Your task to perform on an android device: Open calendar and show me the third week of next month Image 0: 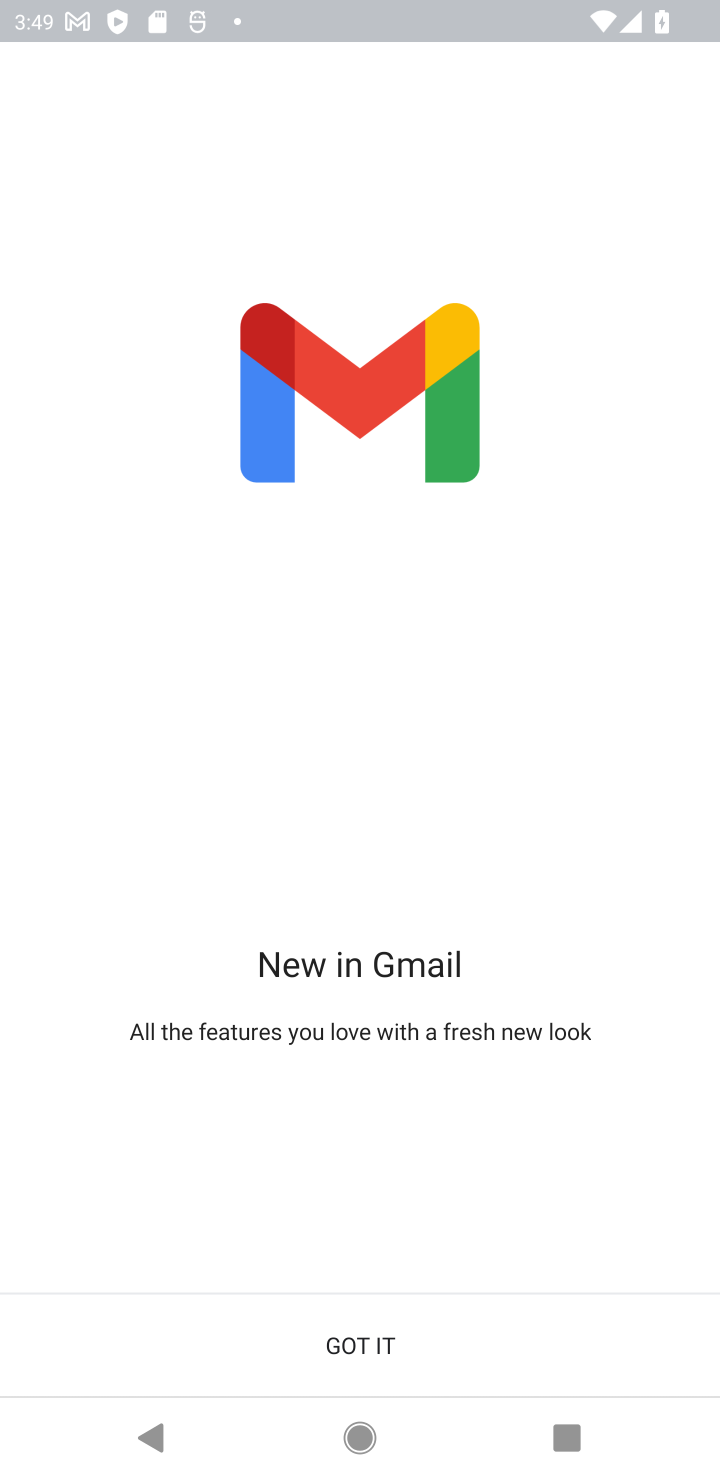
Step 0: click (424, 1312)
Your task to perform on an android device: Open calendar and show me the third week of next month Image 1: 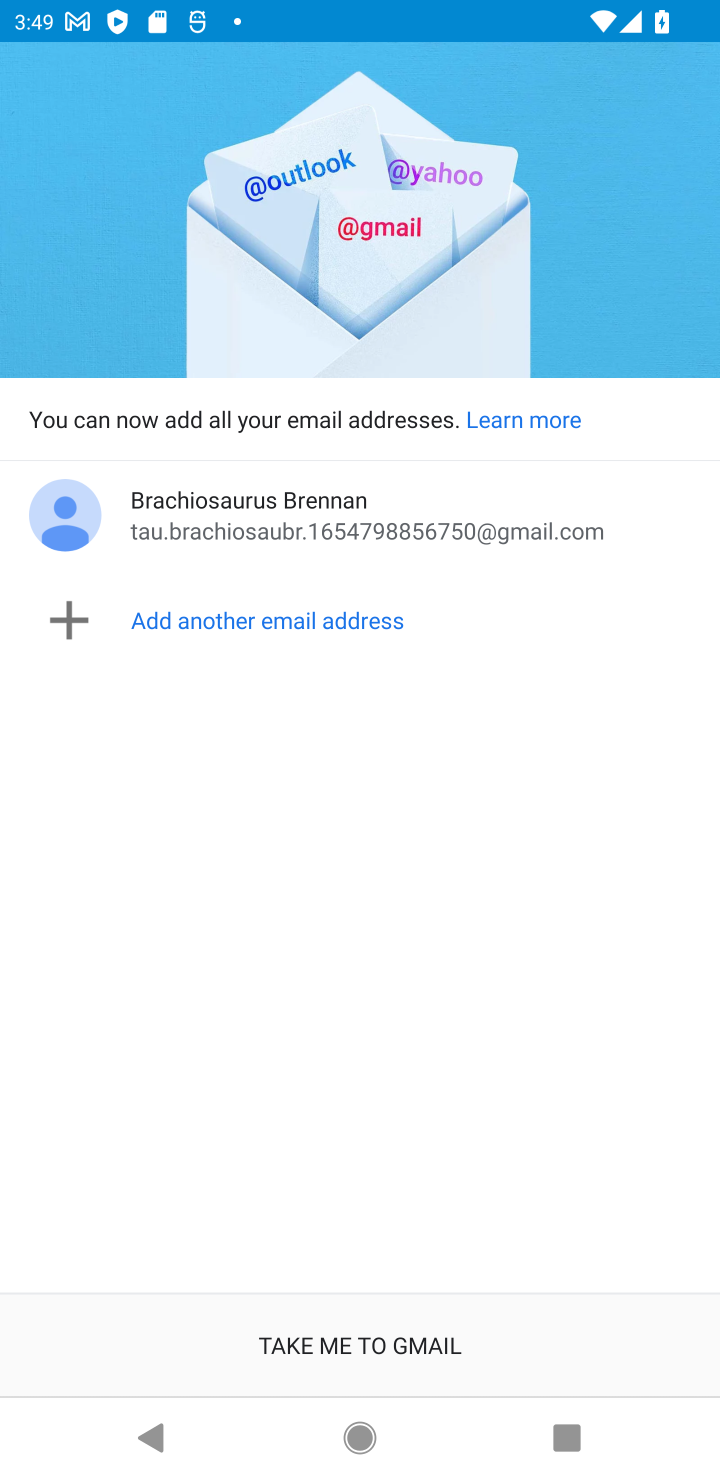
Step 1: press home button
Your task to perform on an android device: Open calendar and show me the third week of next month Image 2: 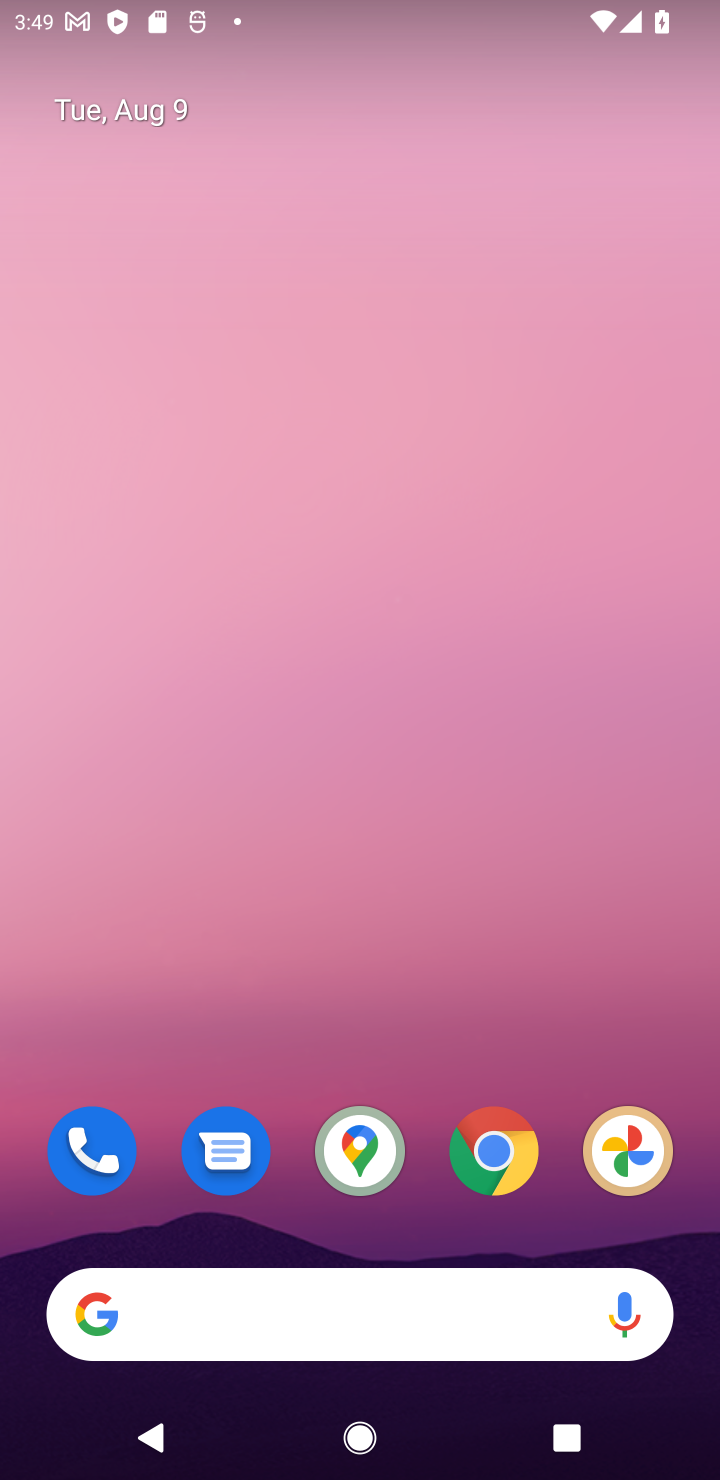
Step 2: drag from (186, 1404) to (416, 217)
Your task to perform on an android device: Open calendar and show me the third week of next month Image 3: 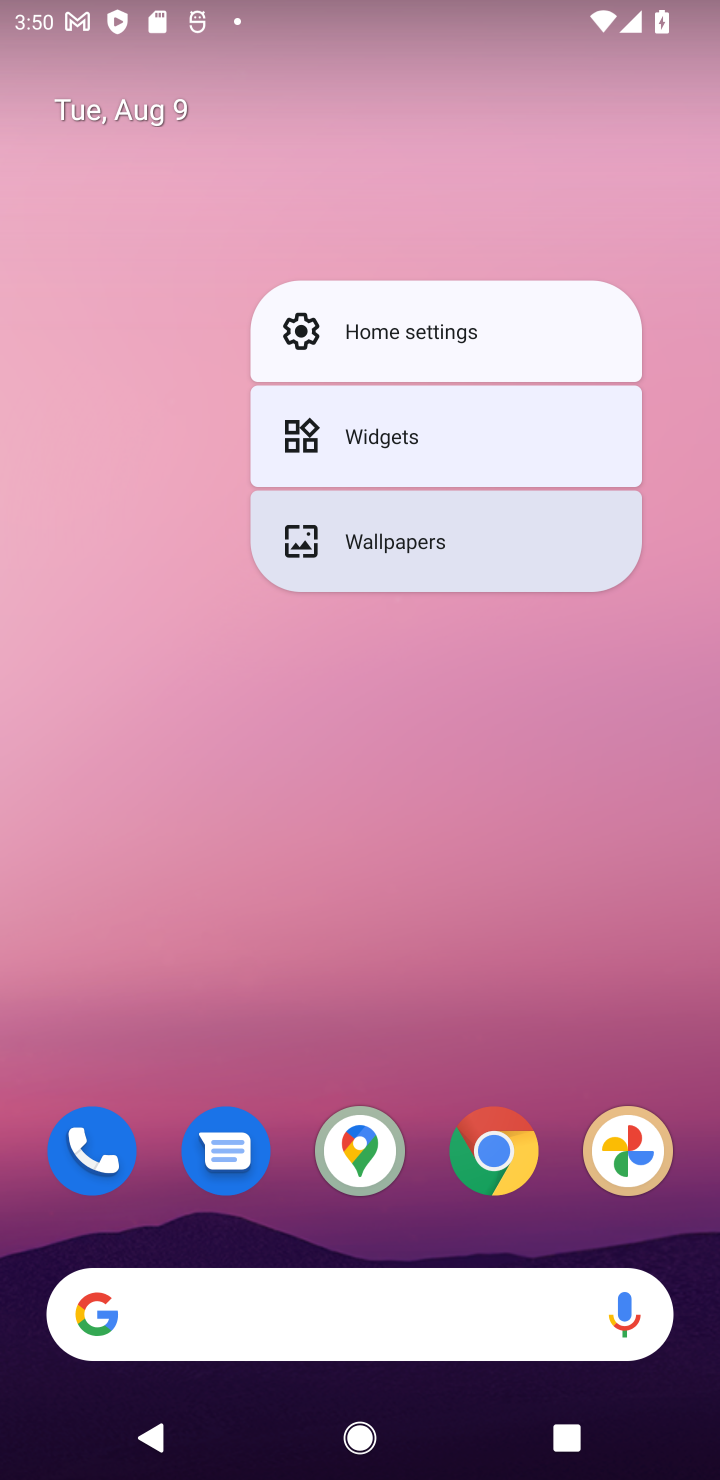
Step 3: drag from (301, 1422) to (183, 132)
Your task to perform on an android device: Open calendar and show me the third week of next month Image 4: 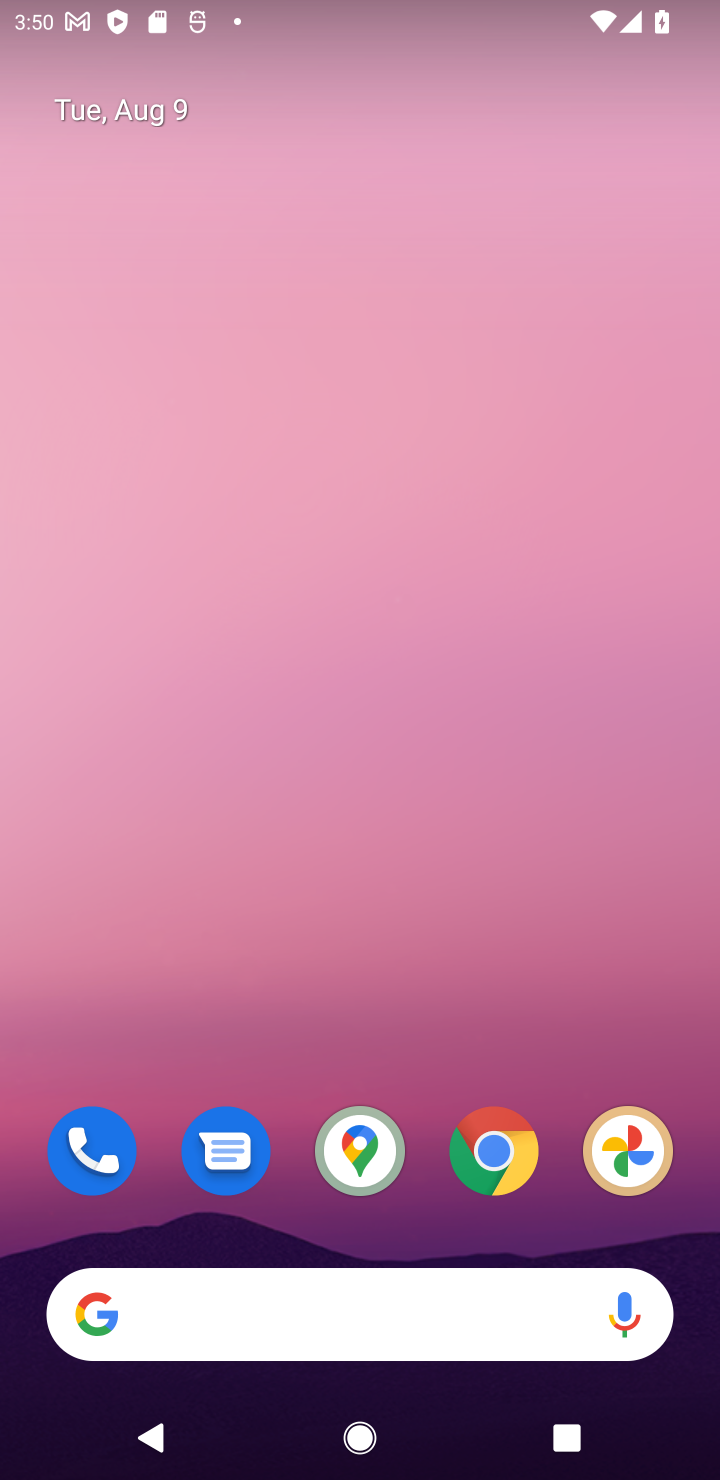
Step 4: drag from (86, 1386) to (93, 583)
Your task to perform on an android device: Open calendar and show me the third week of next month Image 5: 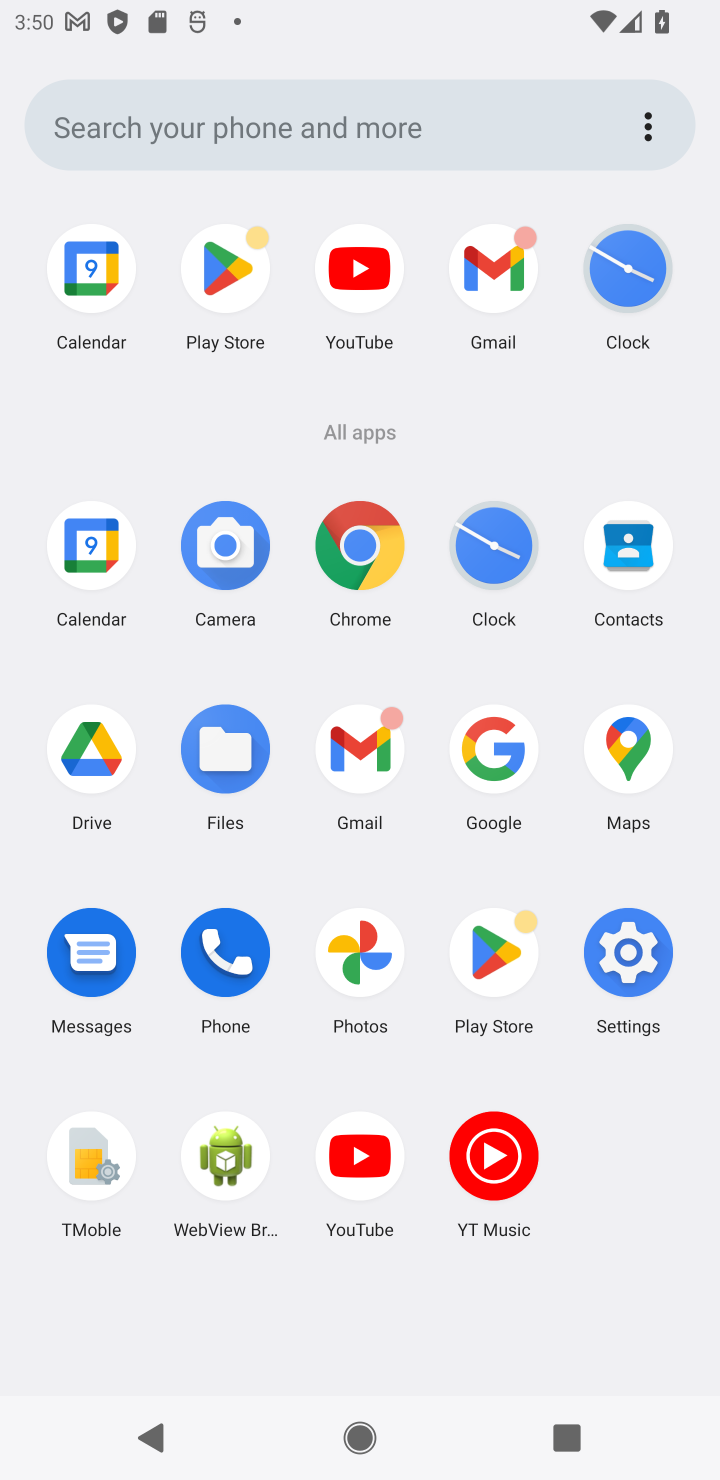
Step 5: click (105, 250)
Your task to perform on an android device: Open calendar and show me the third week of next month Image 6: 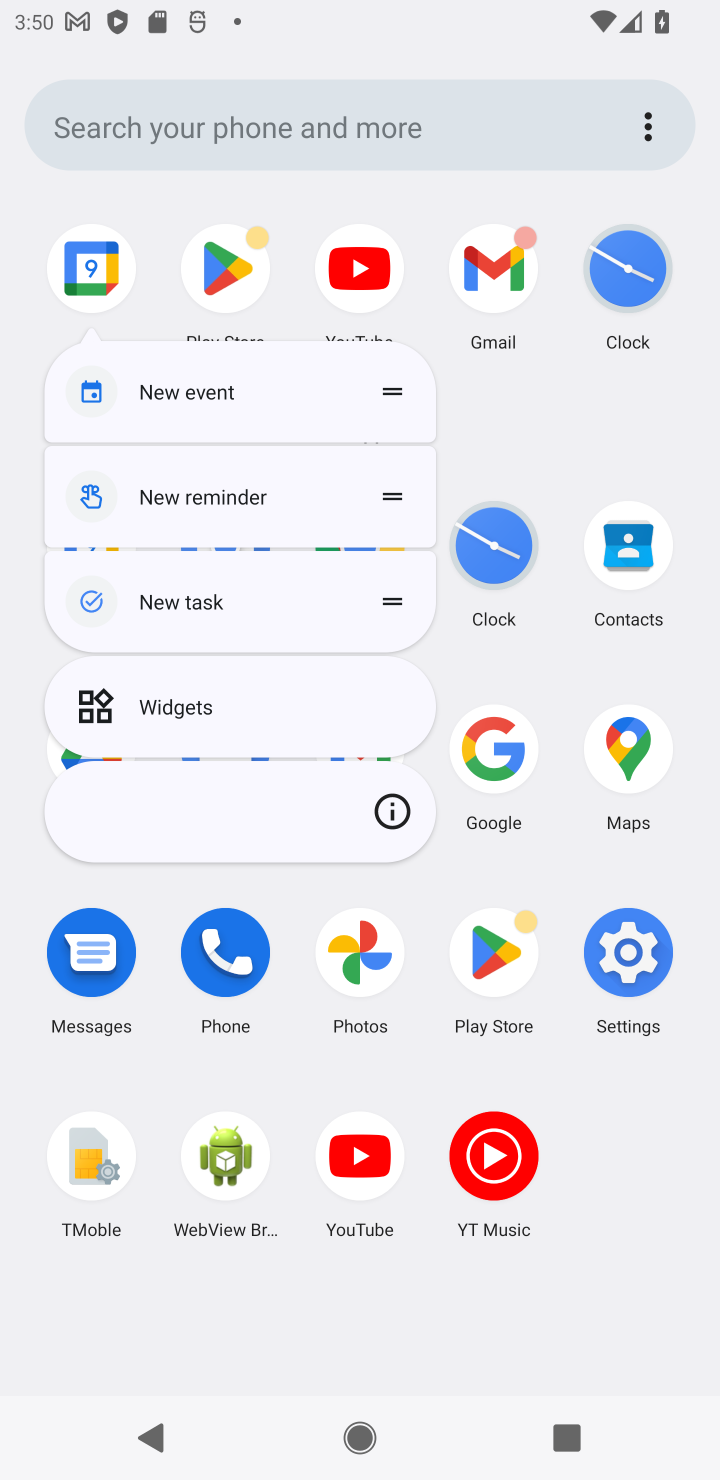
Step 6: click (105, 250)
Your task to perform on an android device: Open calendar and show me the third week of next month Image 7: 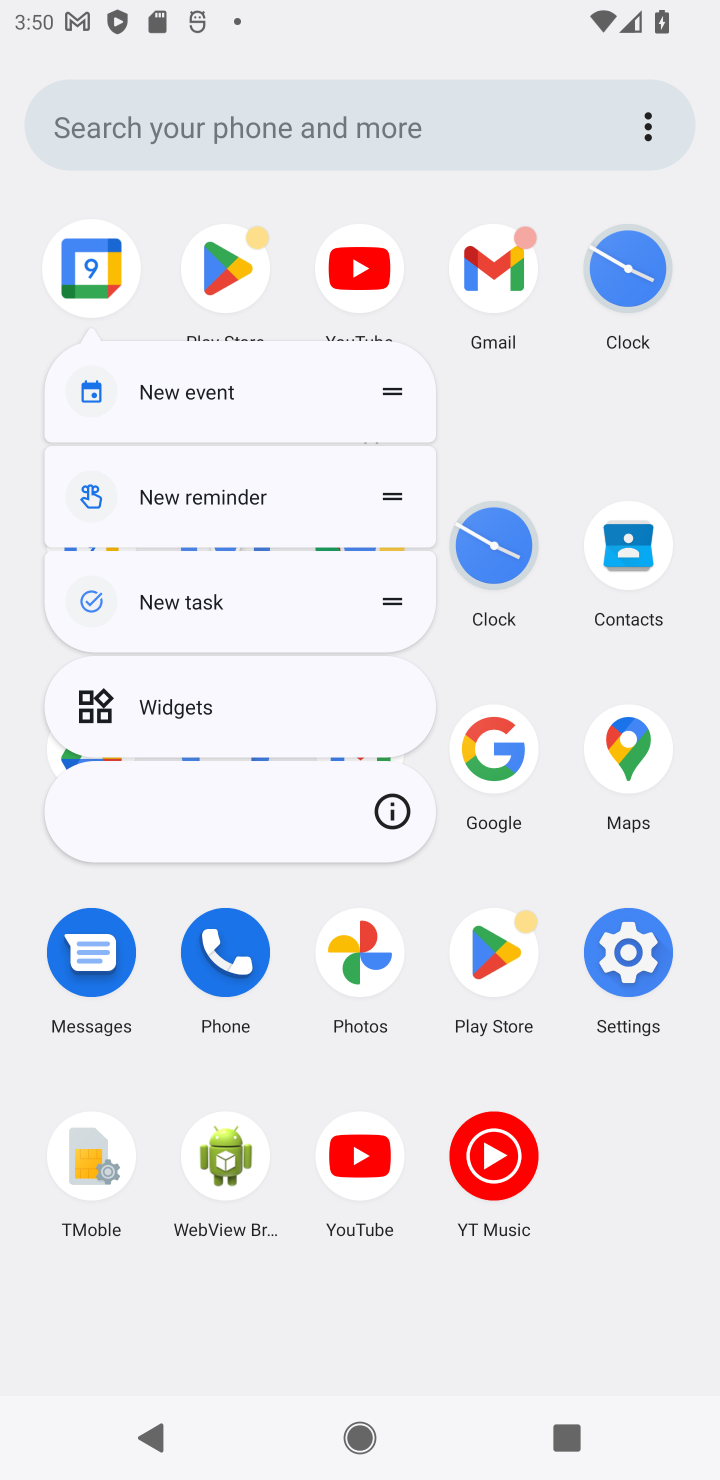
Step 7: click (105, 250)
Your task to perform on an android device: Open calendar and show me the third week of next month Image 8: 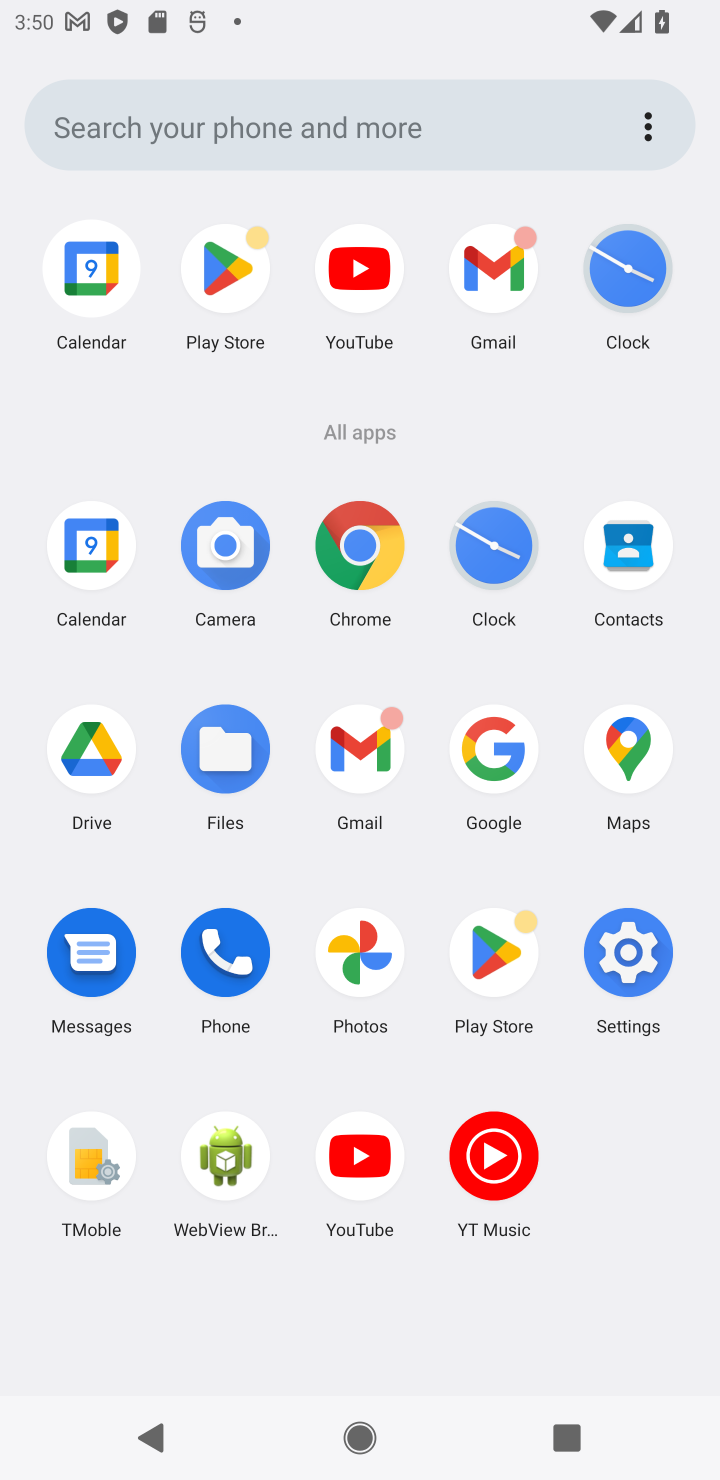
Step 8: click (105, 250)
Your task to perform on an android device: Open calendar and show me the third week of next month Image 9: 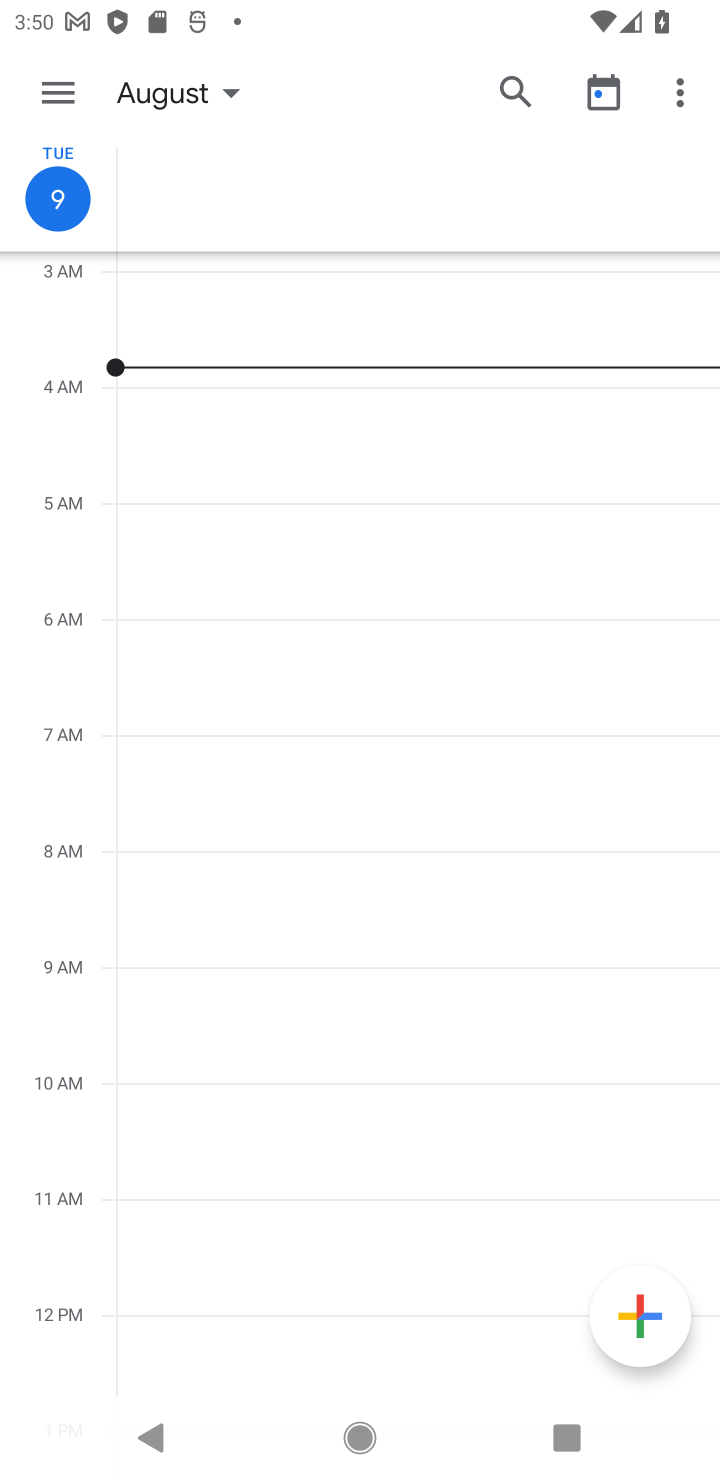
Step 9: click (157, 76)
Your task to perform on an android device: Open calendar and show me the third week of next month Image 10: 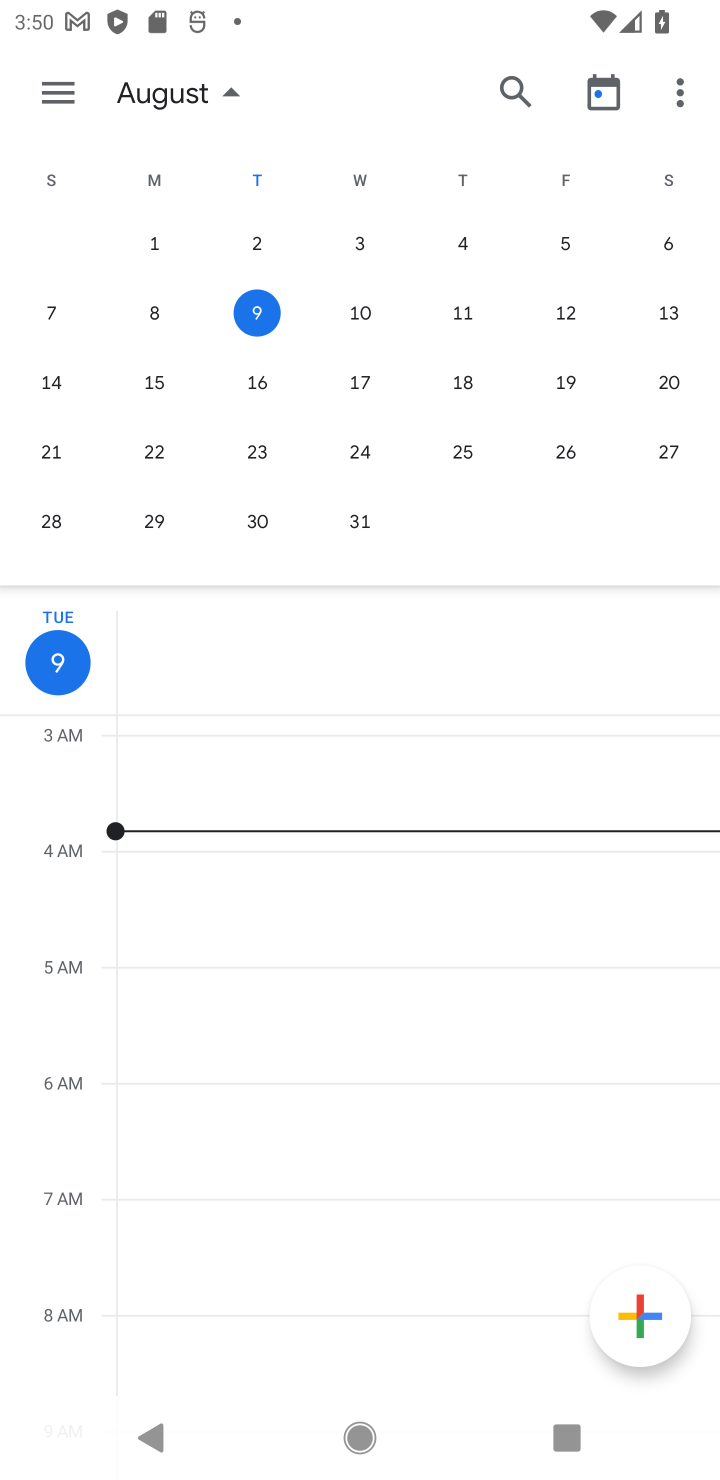
Step 10: drag from (622, 411) to (85, 410)
Your task to perform on an android device: Open calendar and show me the third week of next month Image 11: 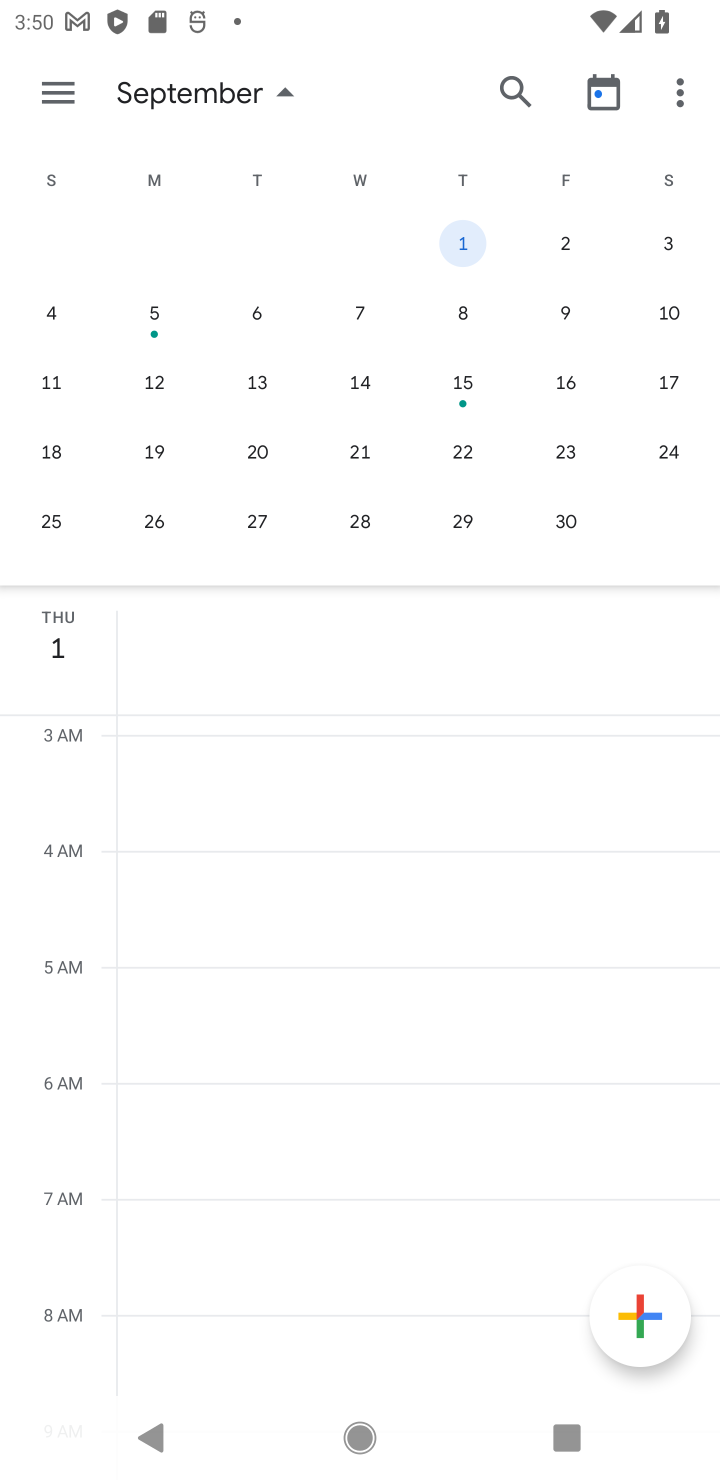
Step 11: click (58, 363)
Your task to perform on an android device: Open calendar and show me the third week of next month Image 12: 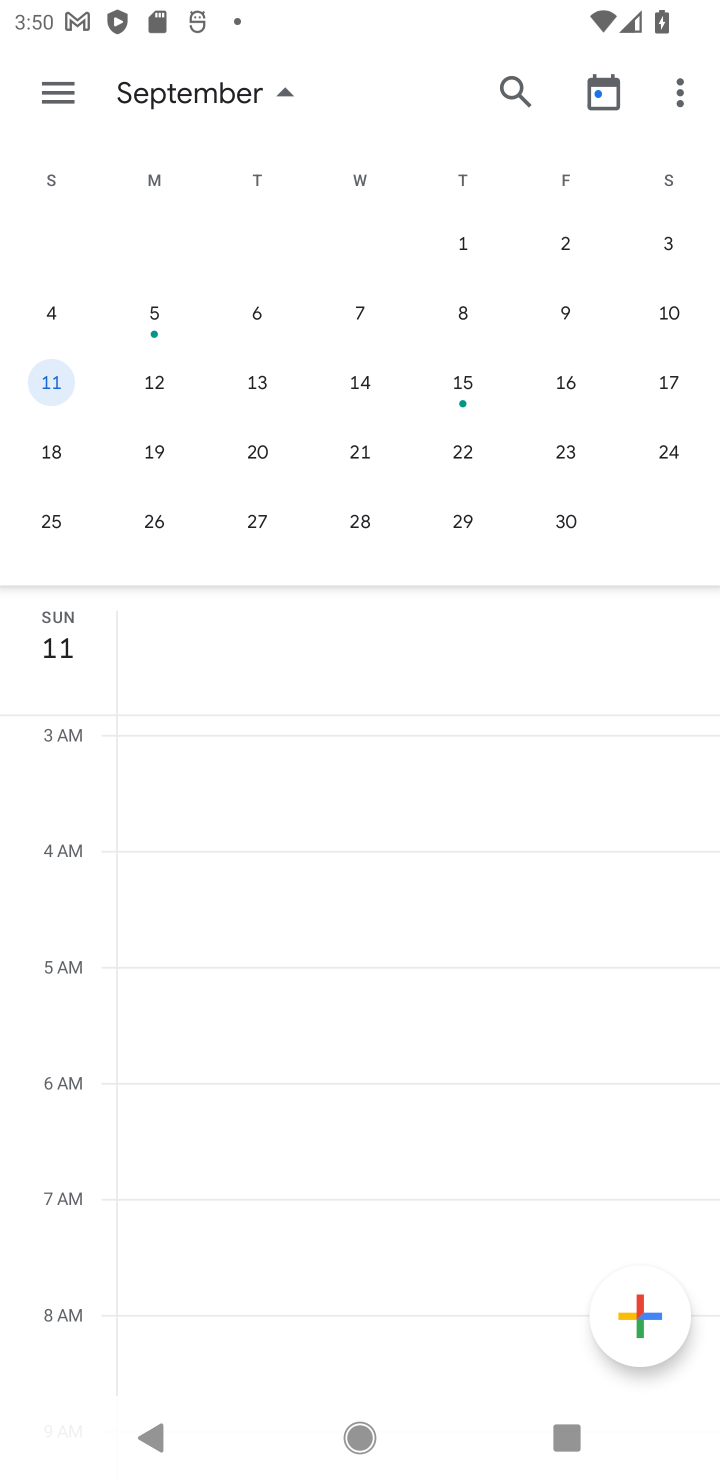
Step 12: task complete